Your task to perform on an android device: toggle location history Image 0: 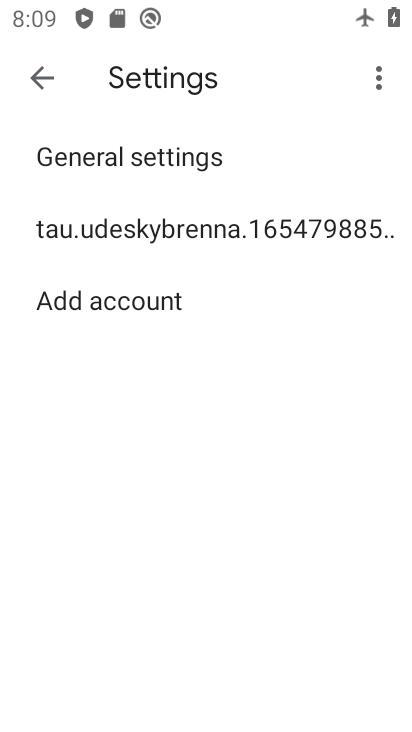
Step 0: press home button
Your task to perform on an android device: toggle location history Image 1: 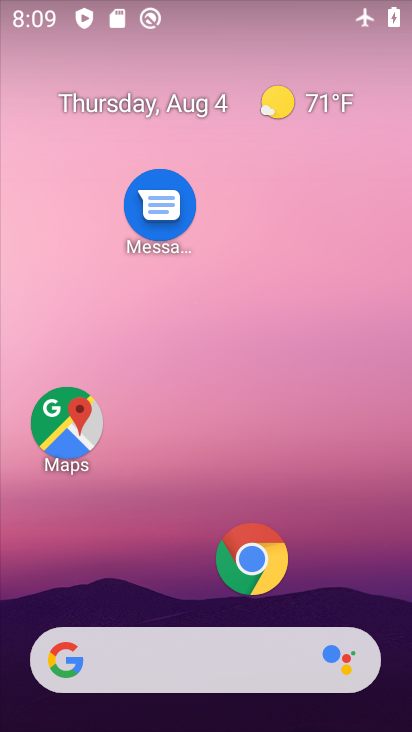
Step 1: drag from (209, 577) to (167, 0)
Your task to perform on an android device: toggle location history Image 2: 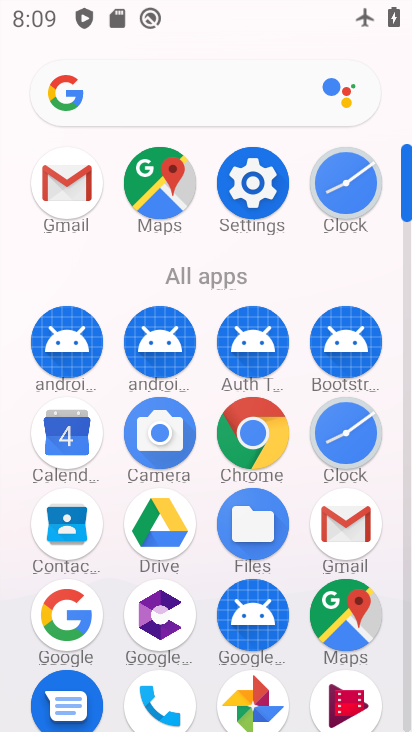
Step 2: click (241, 184)
Your task to perform on an android device: toggle location history Image 3: 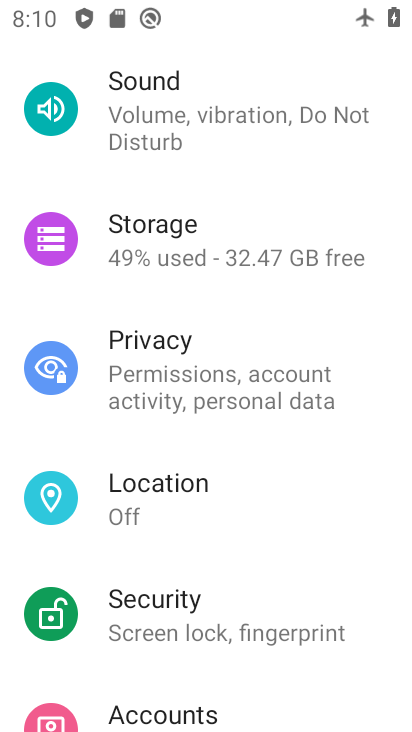
Step 3: click (216, 499)
Your task to perform on an android device: toggle location history Image 4: 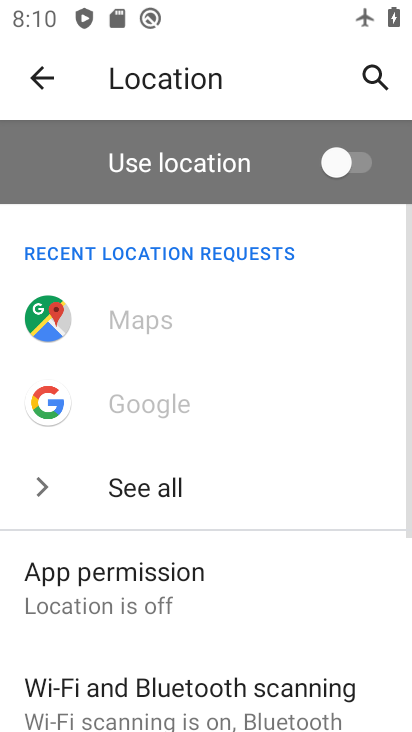
Step 4: drag from (246, 524) to (233, 117)
Your task to perform on an android device: toggle location history Image 5: 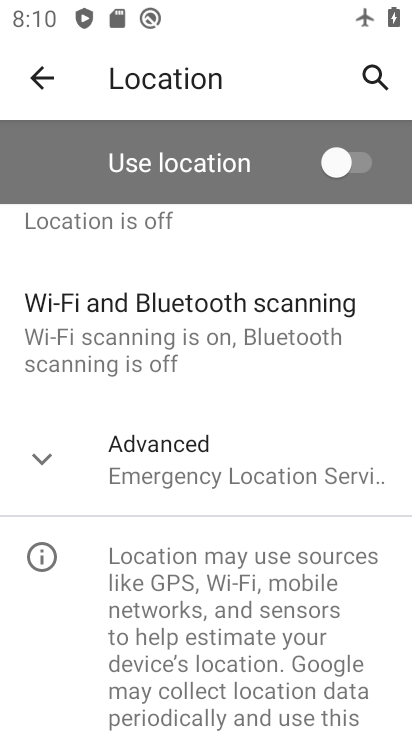
Step 5: click (186, 463)
Your task to perform on an android device: toggle location history Image 6: 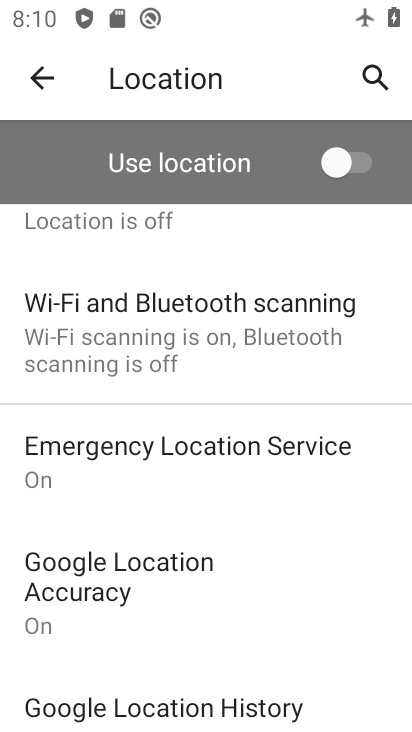
Step 6: click (213, 691)
Your task to perform on an android device: toggle location history Image 7: 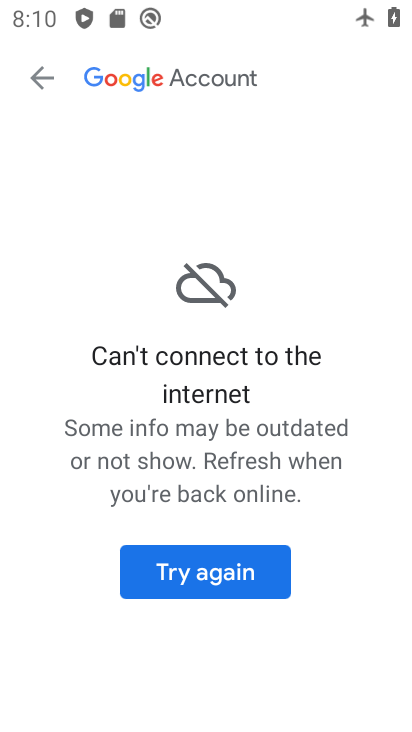
Step 7: task complete